Your task to perform on an android device: change notifications settings Image 0: 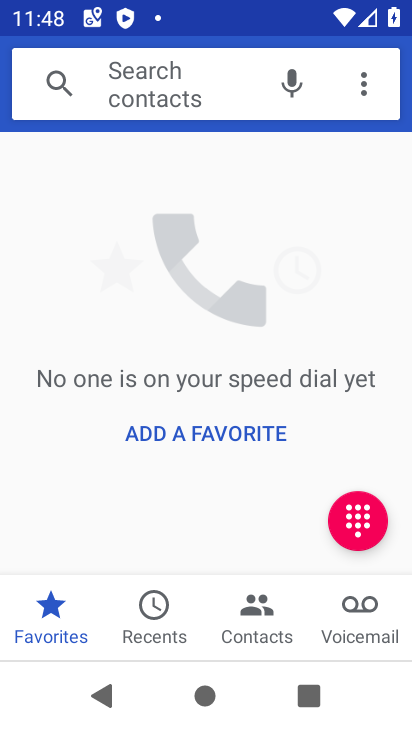
Step 0: press home button
Your task to perform on an android device: change notifications settings Image 1: 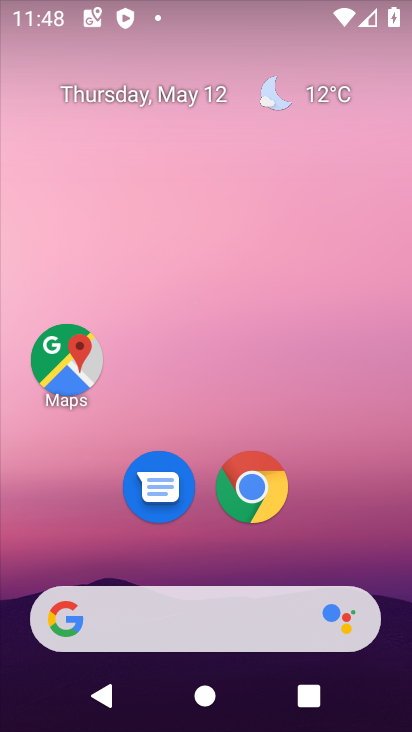
Step 1: drag from (350, 578) to (382, 29)
Your task to perform on an android device: change notifications settings Image 2: 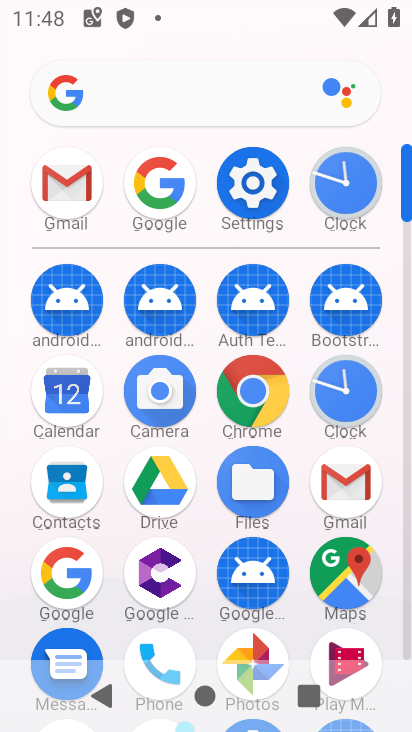
Step 2: click (247, 187)
Your task to perform on an android device: change notifications settings Image 3: 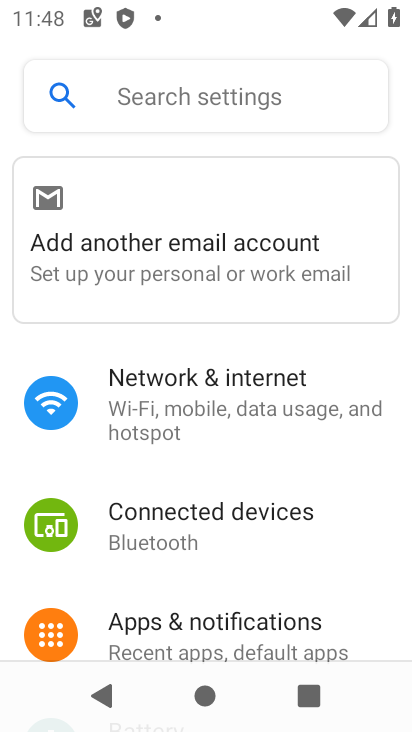
Step 3: click (227, 633)
Your task to perform on an android device: change notifications settings Image 4: 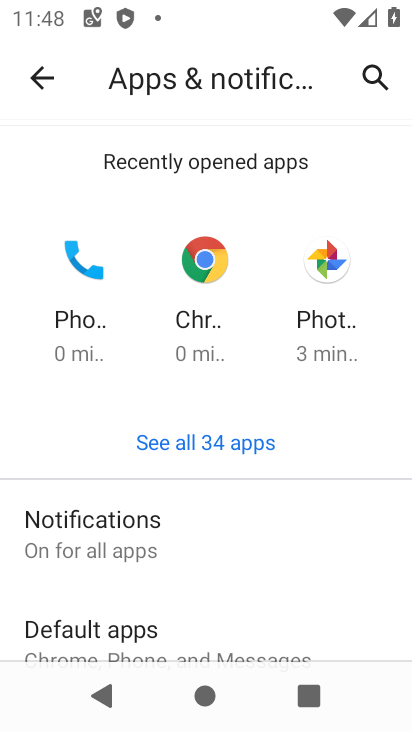
Step 4: click (95, 551)
Your task to perform on an android device: change notifications settings Image 5: 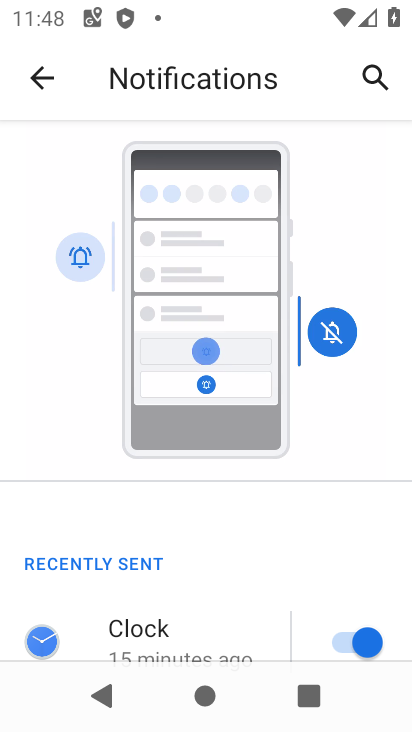
Step 5: drag from (164, 580) to (182, 77)
Your task to perform on an android device: change notifications settings Image 6: 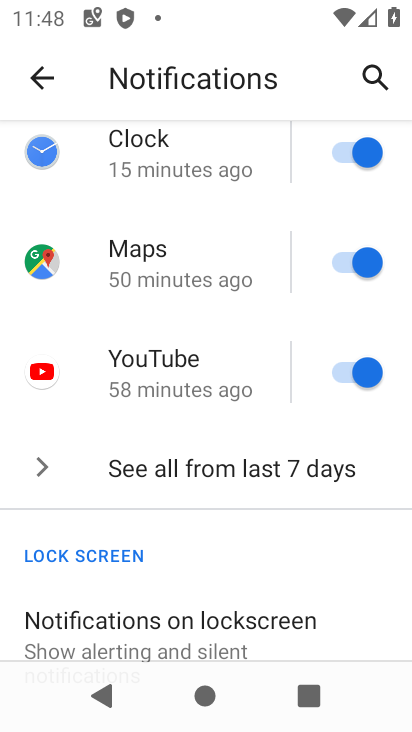
Step 6: click (197, 476)
Your task to perform on an android device: change notifications settings Image 7: 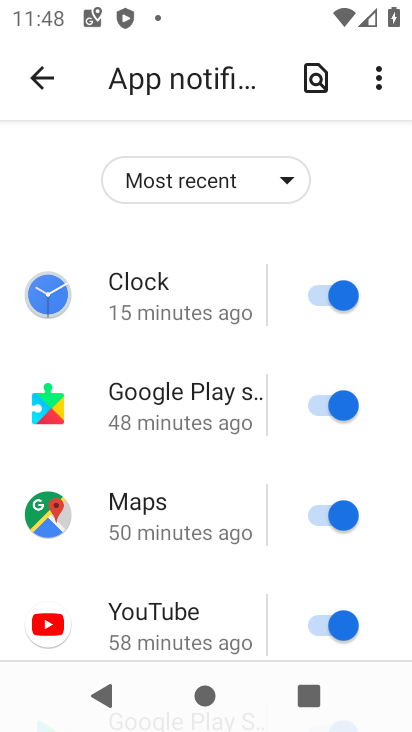
Step 7: click (283, 186)
Your task to perform on an android device: change notifications settings Image 8: 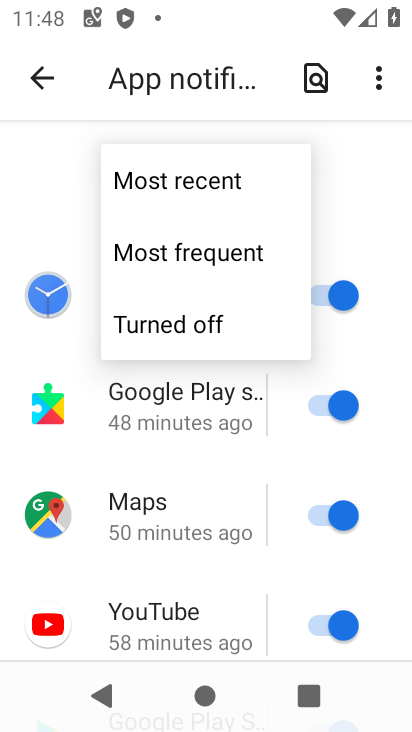
Step 8: click (160, 249)
Your task to perform on an android device: change notifications settings Image 9: 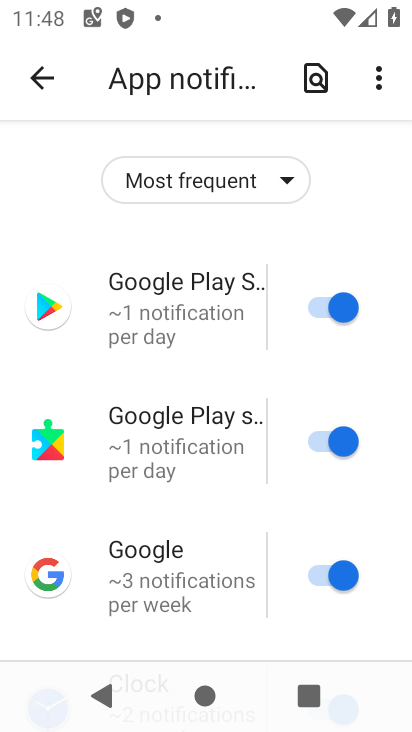
Step 9: task complete